Your task to perform on an android device: Search for logitech g502 on target, select the first entry, add it to the cart, then select checkout. Image 0: 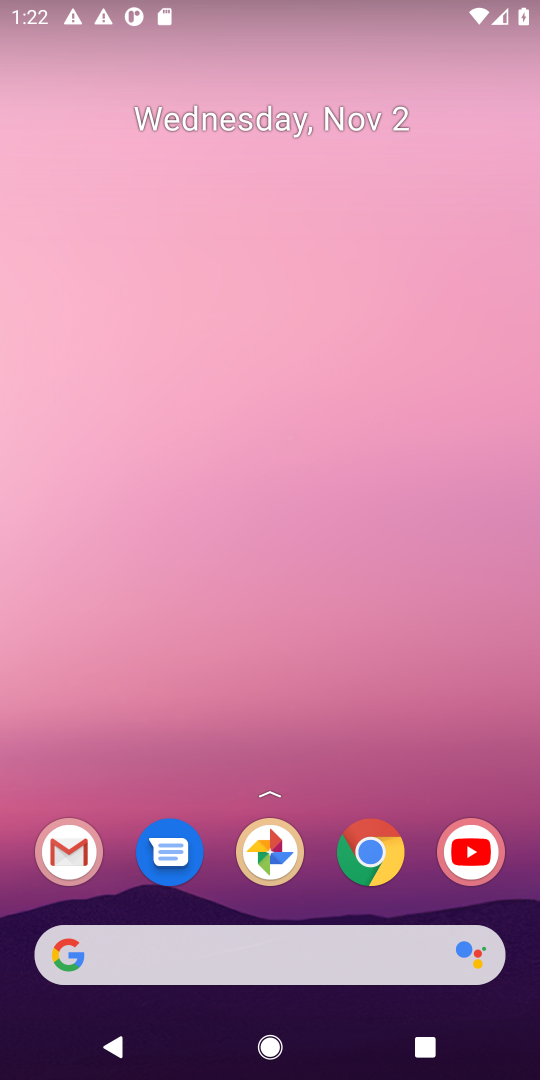
Step 0: press home button
Your task to perform on an android device: Search for logitech g502 on target, select the first entry, add it to the cart, then select checkout. Image 1: 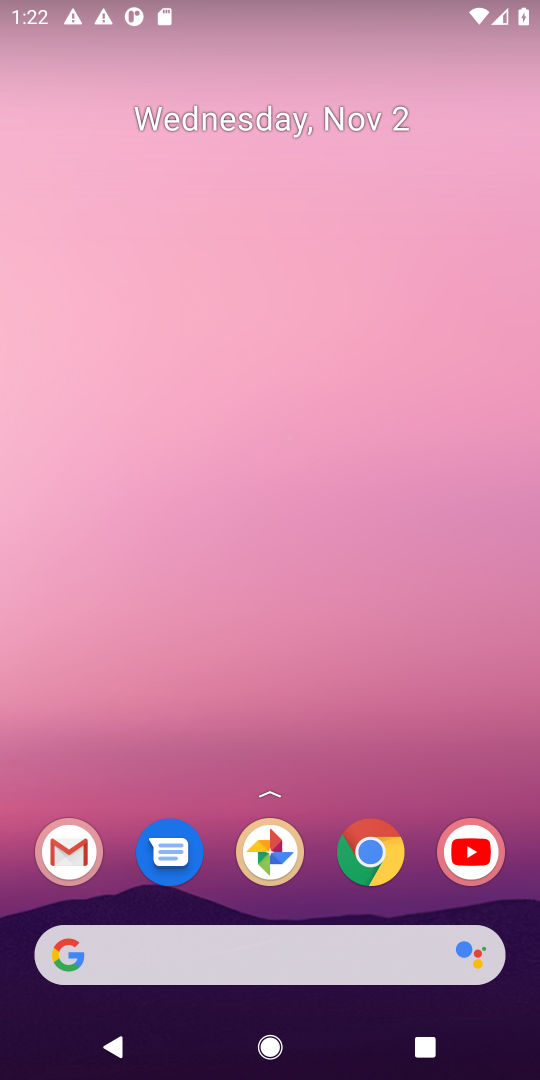
Step 1: click (54, 950)
Your task to perform on an android device: Search for logitech g502 on target, select the first entry, add it to the cart, then select checkout. Image 2: 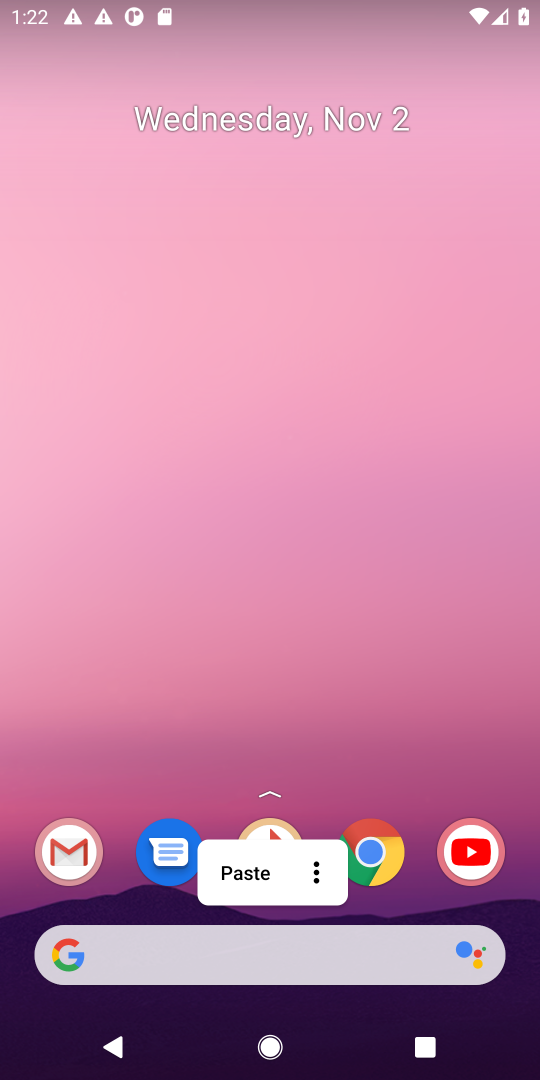
Step 2: click (63, 954)
Your task to perform on an android device: Search for logitech g502 on target, select the first entry, add it to the cart, then select checkout. Image 3: 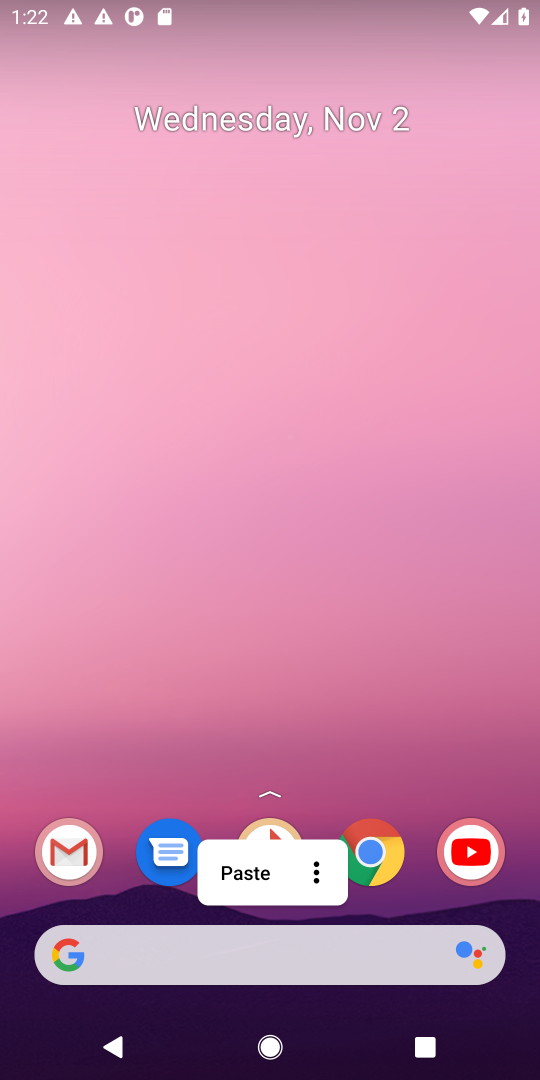
Step 3: click (75, 973)
Your task to perform on an android device: Search for logitech g502 on target, select the first entry, add it to the cart, then select checkout. Image 4: 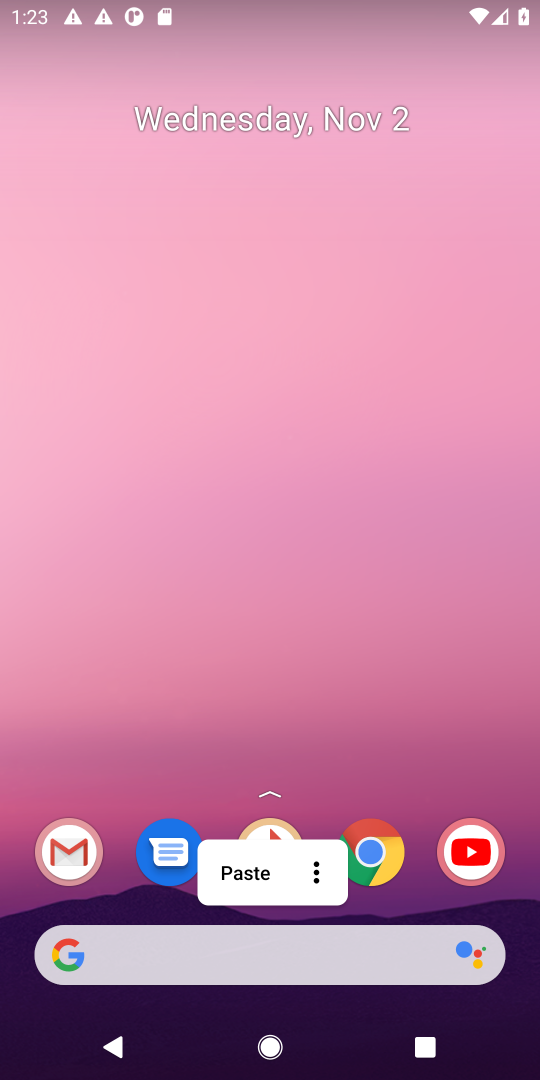
Step 4: click (73, 956)
Your task to perform on an android device: Search for logitech g502 on target, select the first entry, add it to the cart, then select checkout. Image 5: 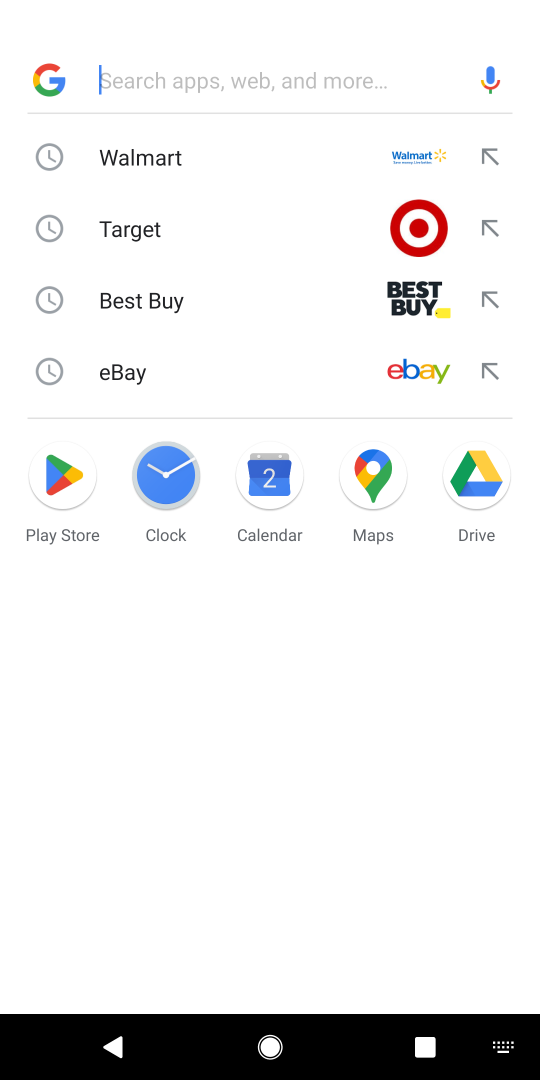
Step 5: click (429, 226)
Your task to perform on an android device: Search for logitech g502 on target, select the first entry, add it to the cart, then select checkout. Image 6: 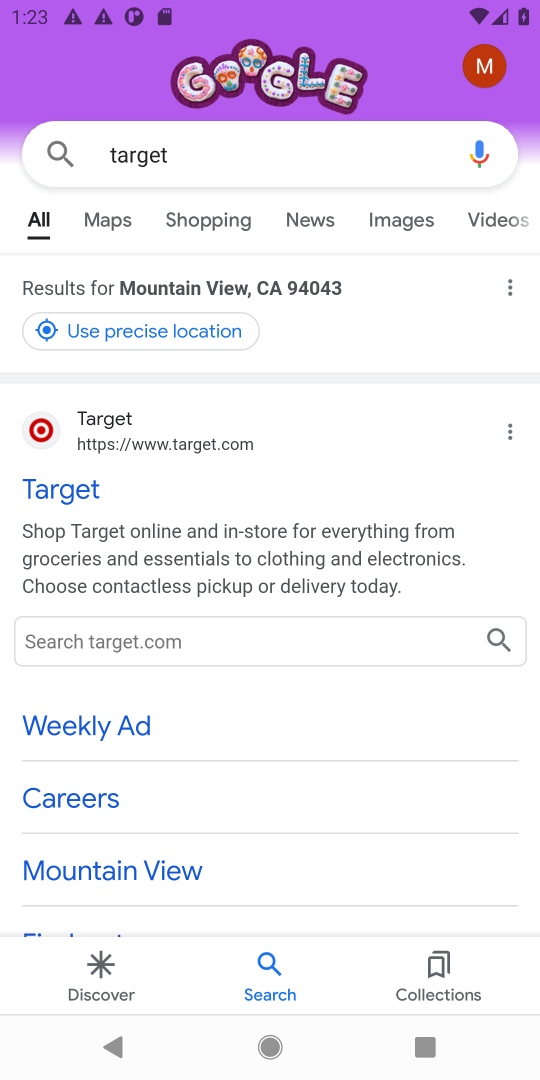
Step 6: click (71, 484)
Your task to perform on an android device: Search for logitech g502 on target, select the first entry, add it to the cart, then select checkout. Image 7: 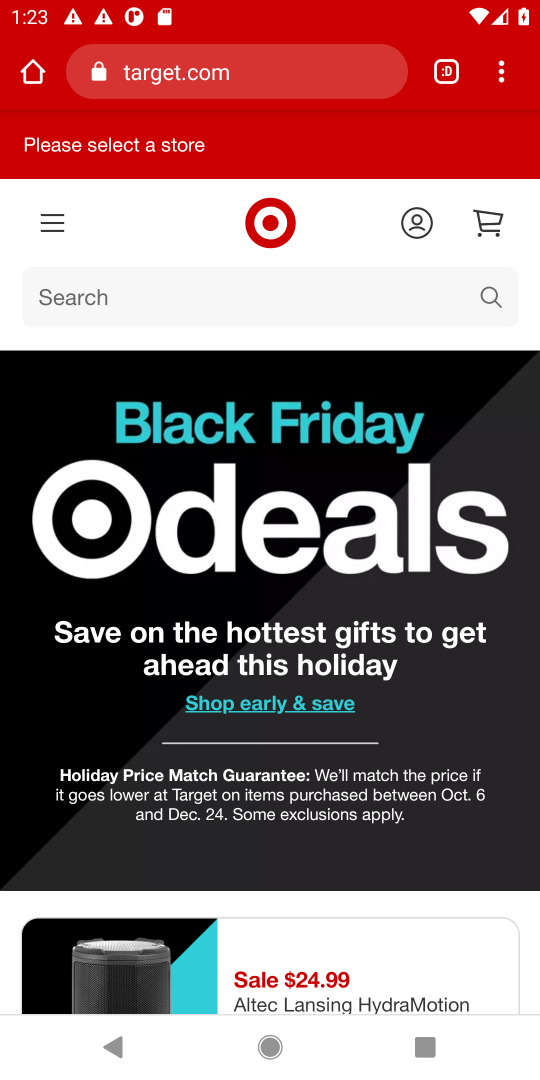
Step 7: click (106, 298)
Your task to perform on an android device: Search for logitech g502 on target, select the first entry, add it to the cart, then select checkout. Image 8: 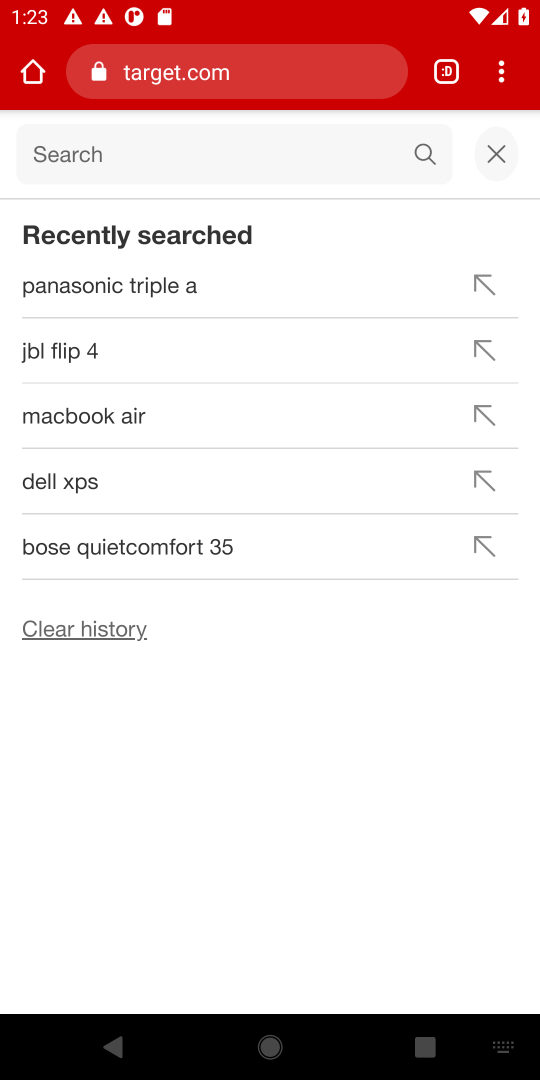
Step 8: type " logitech g502 "
Your task to perform on an android device: Search for logitech g502 on target, select the first entry, add it to the cart, then select checkout. Image 9: 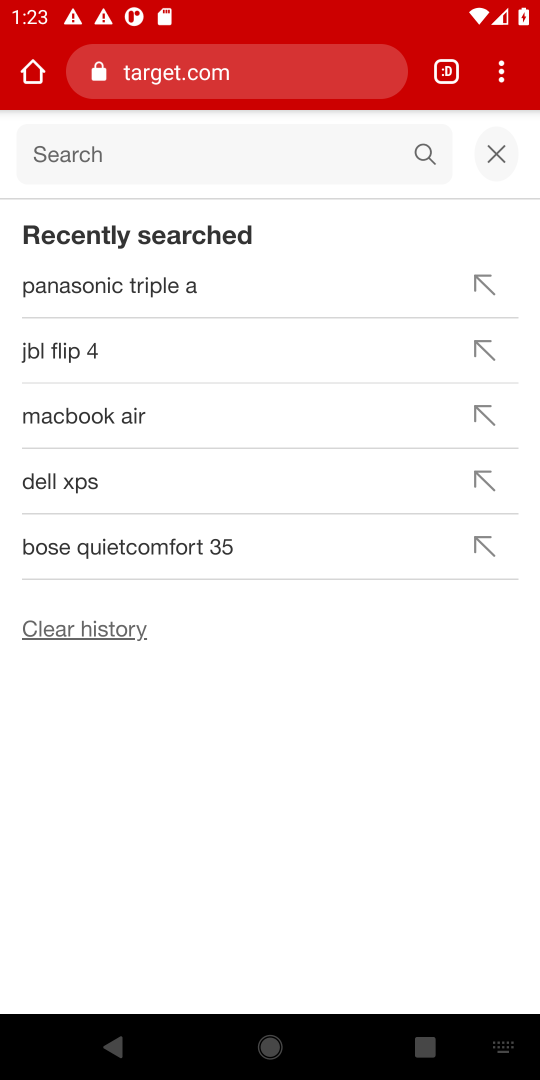
Step 9: click (76, 154)
Your task to perform on an android device: Search for logitech g502 on target, select the first entry, add it to the cart, then select checkout. Image 10: 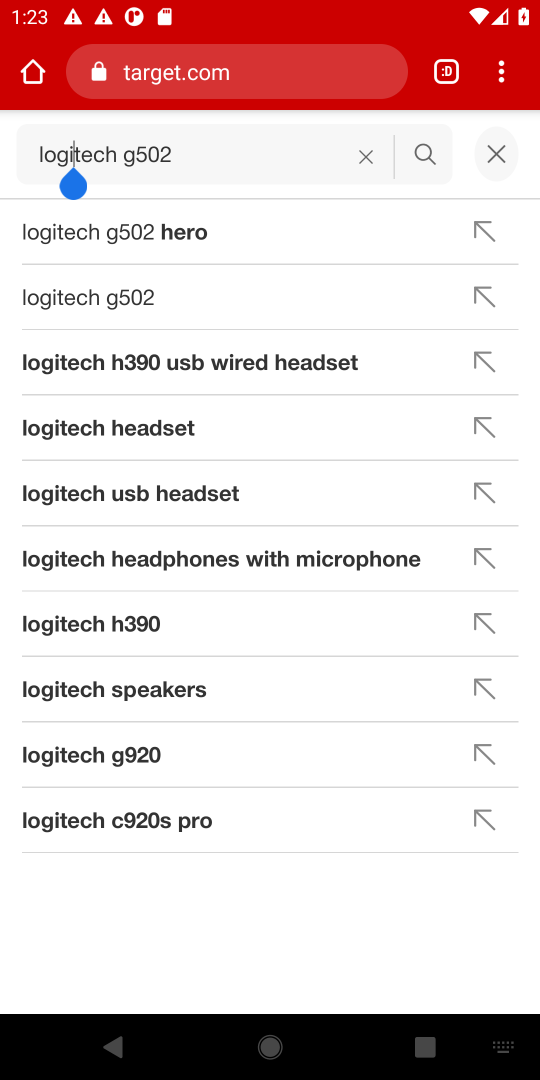
Step 10: press enter
Your task to perform on an android device: Search for logitech g502 on target, select the first entry, add it to the cart, then select checkout. Image 11: 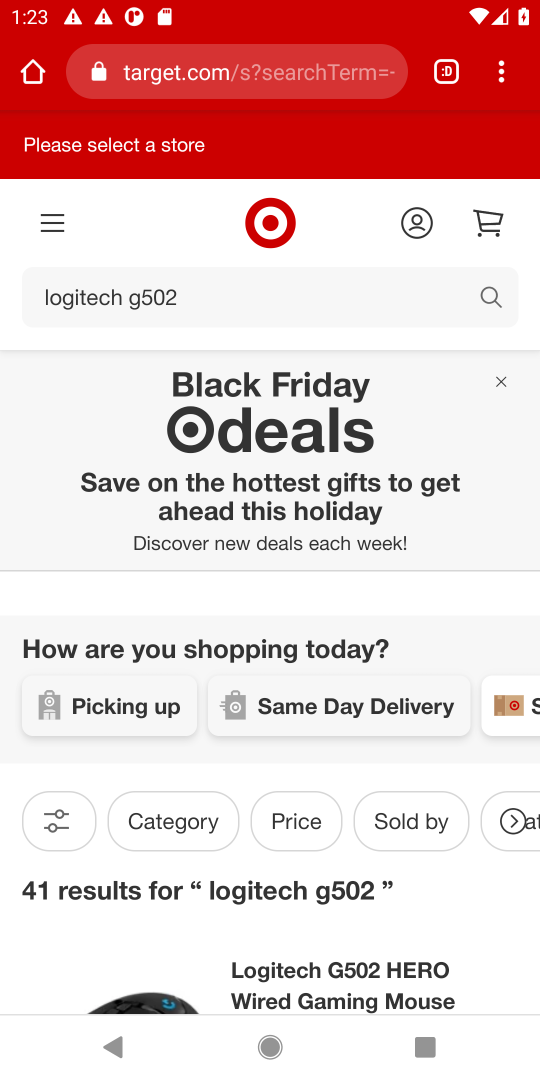
Step 11: drag from (456, 951) to (384, 510)
Your task to perform on an android device: Search for logitech g502 on target, select the first entry, add it to the cart, then select checkout. Image 12: 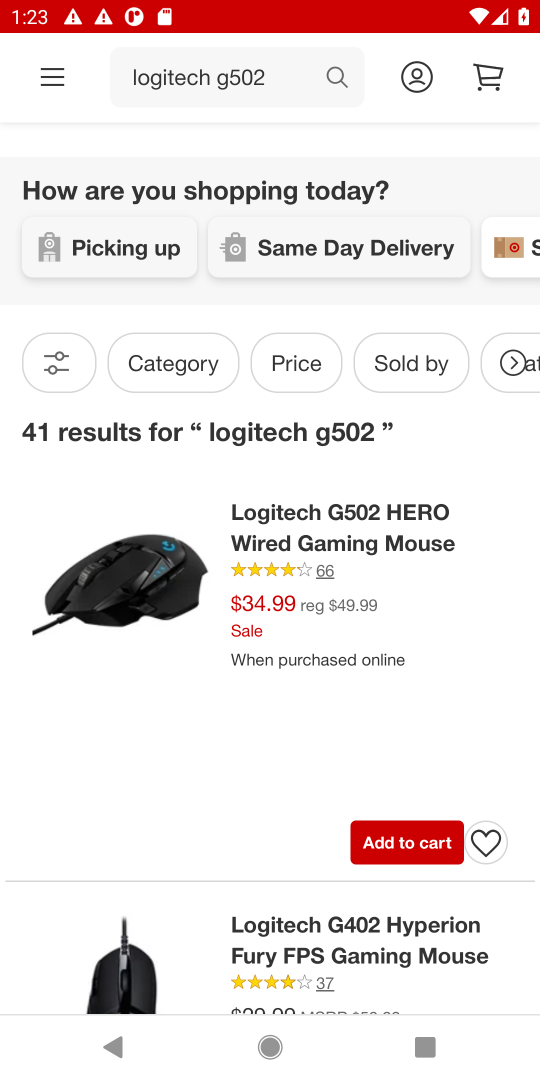
Step 12: click (389, 842)
Your task to perform on an android device: Search for logitech g502 on target, select the first entry, add it to the cart, then select checkout. Image 13: 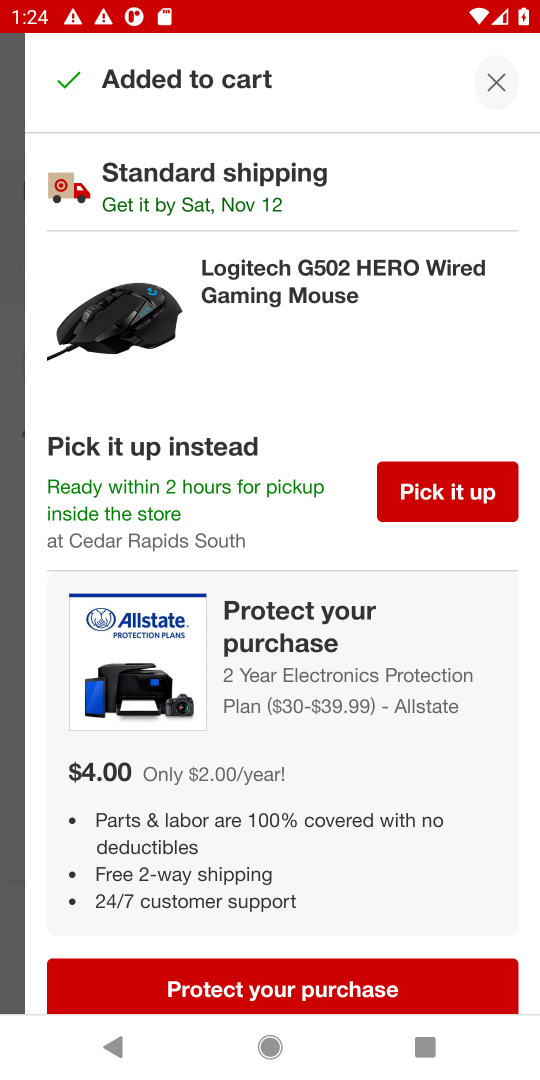
Step 13: click (482, 73)
Your task to perform on an android device: Search for logitech g502 on target, select the first entry, add it to the cart, then select checkout. Image 14: 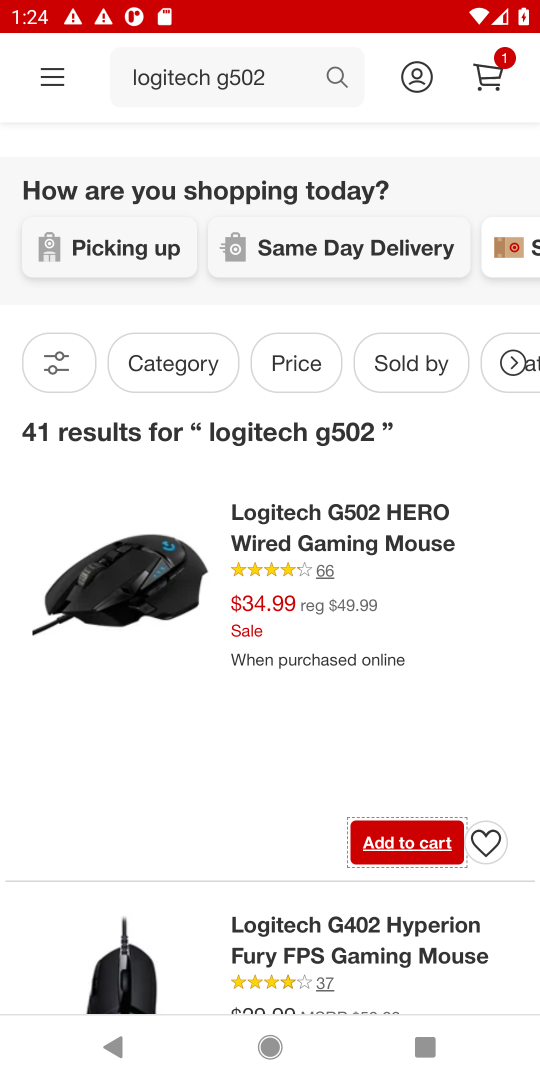
Step 14: click (488, 70)
Your task to perform on an android device: Search for logitech g502 on target, select the first entry, add it to the cart, then select checkout. Image 15: 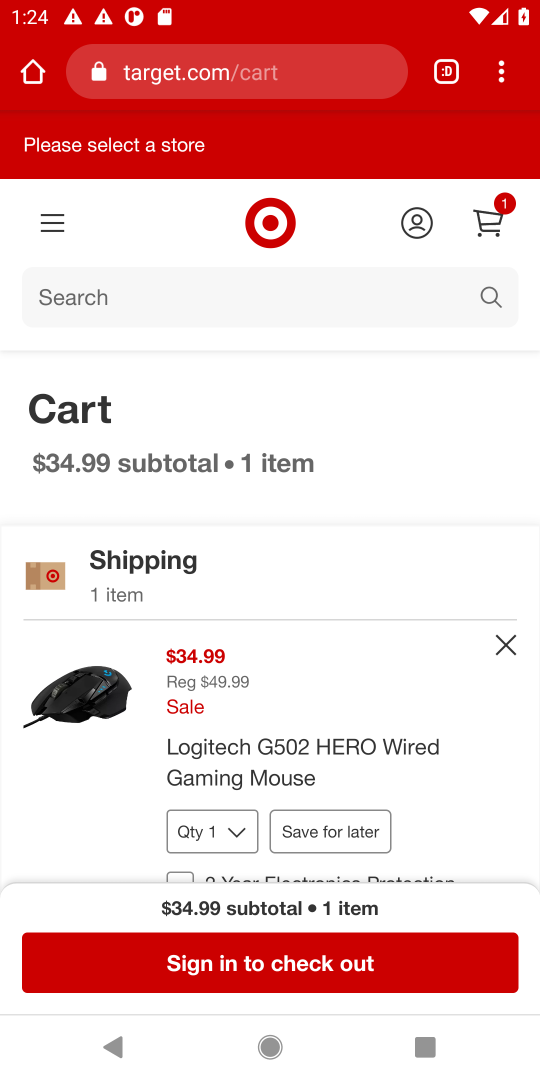
Step 15: click (354, 950)
Your task to perform on an android device: Search for logitech g502 on target, select the first entry, add it to the cart, then select checkout. Image 16: 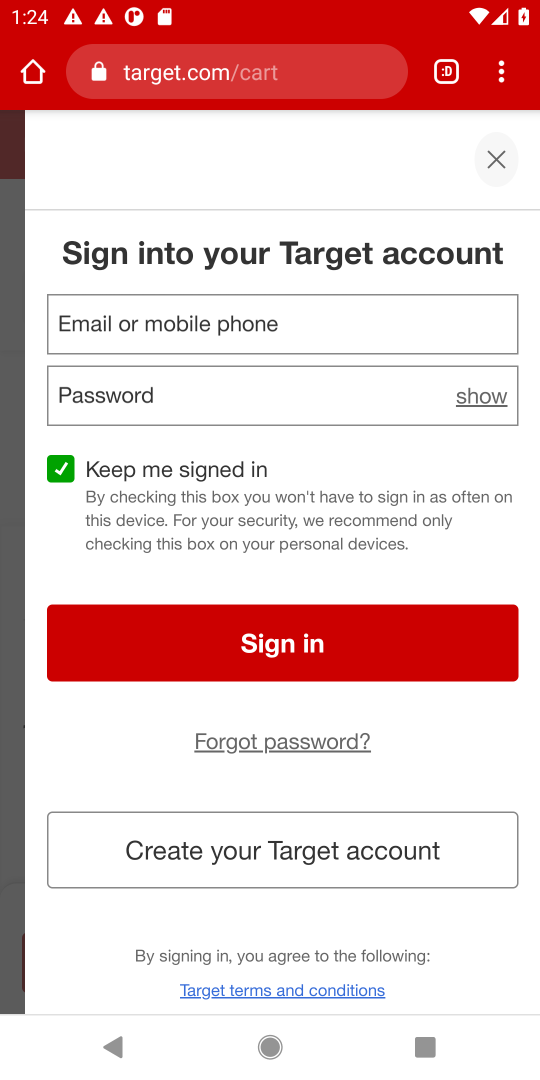
Step 16: task complete